Your task to perform on an android device: Go to network settings Image 0: 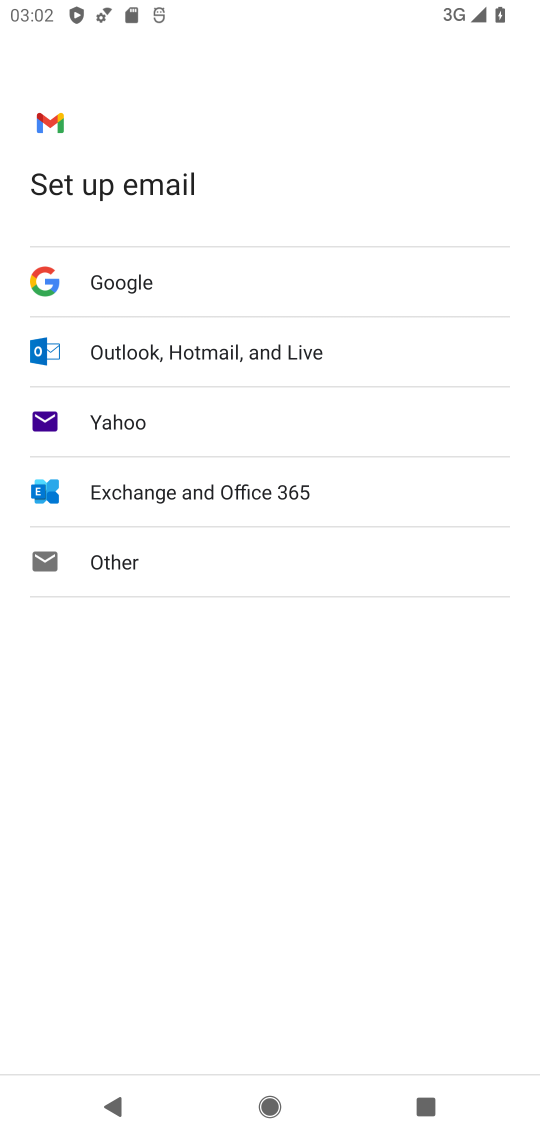
Step 0: press home button
Your task to perform on an android device: Go to network settings Image 1: 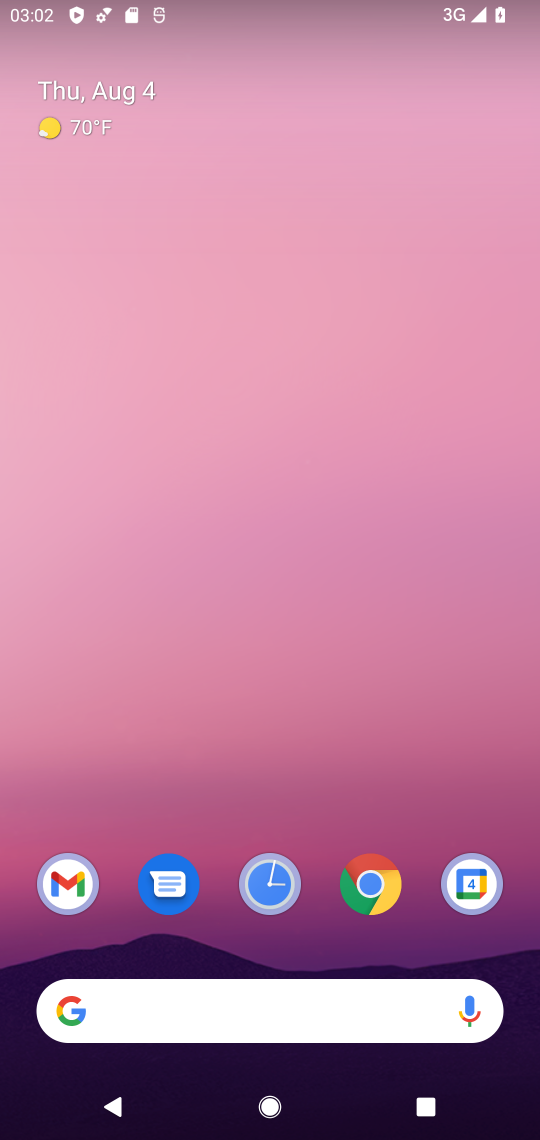
Step 1: drag from (327, 832) to (368, 197)
Your task to perform on an android device: Go to network settings Image 2: 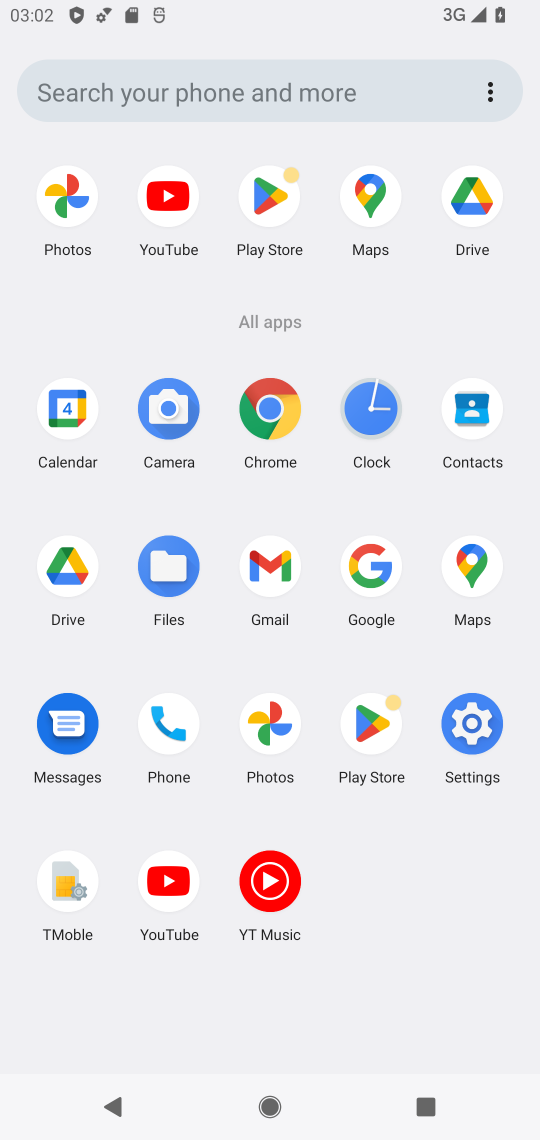
Step 2: click (479, 731)
Your task to perform on an android device: Go to network settings Image 3: 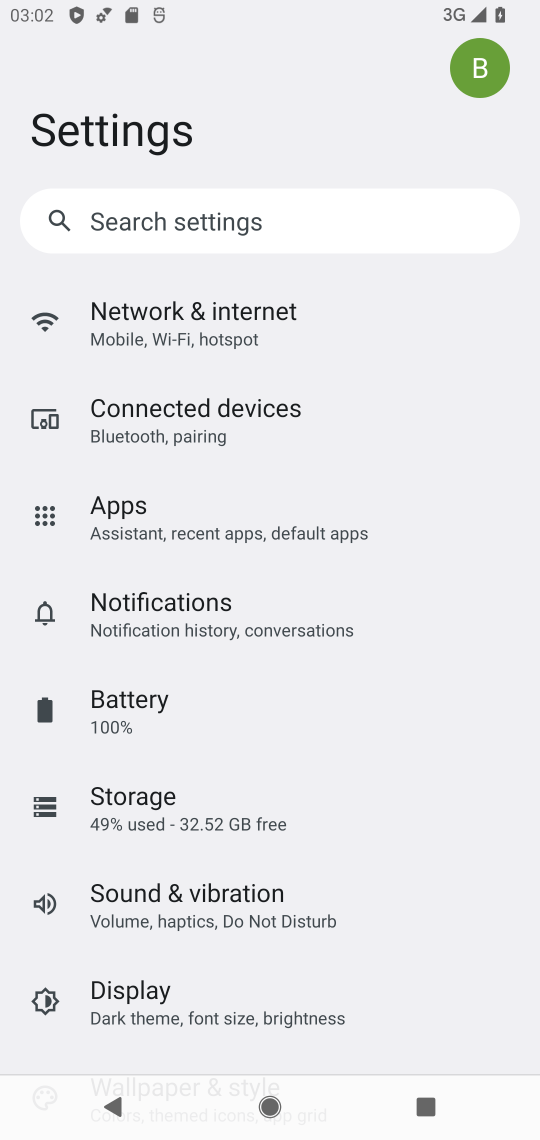
Step 3: drag from (463, 918) to (438, 675)
Your task to perform on an android device: Go to network settings Image 4: 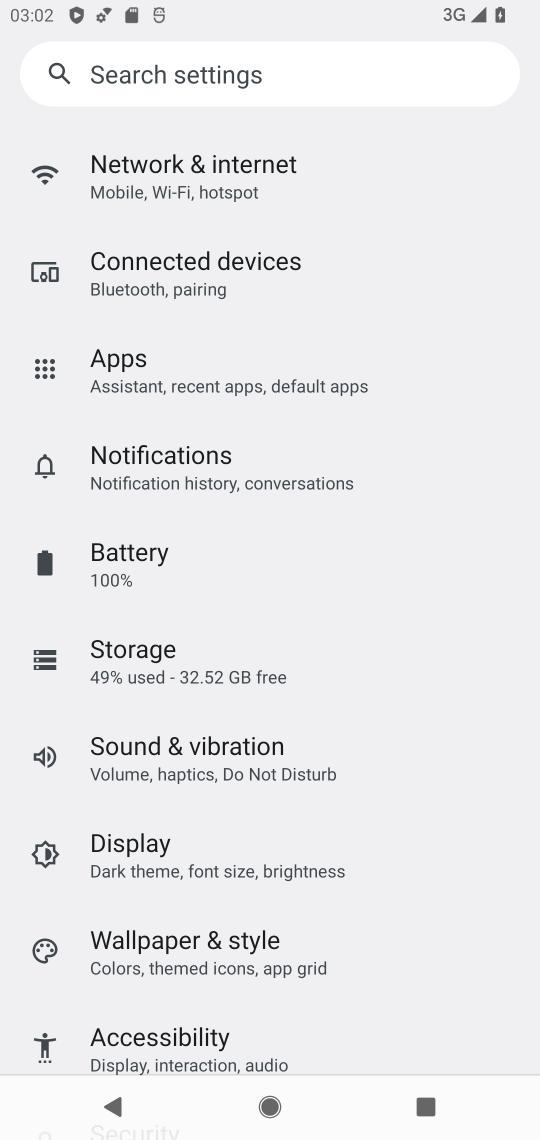
Step 4: drag from (458, 974) to (465, 750)
Your task to perform on an android device: Go to network settings Image 5: 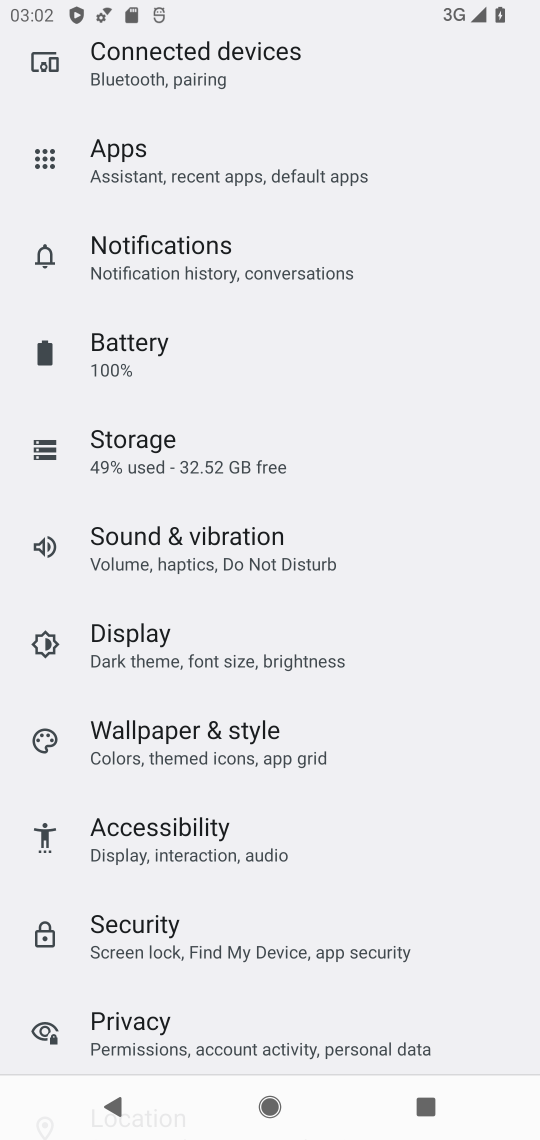
Step 5: drag from (461, 999) to (483, 742)
Your task to perform on an android device: Go to network settings Image 6: 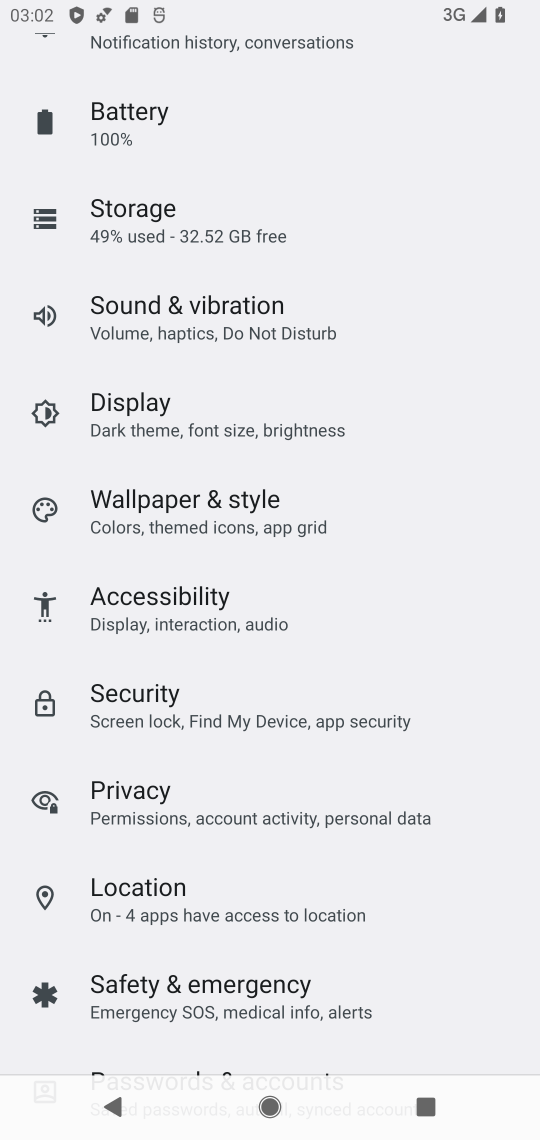
Step 6: drag from (458, 994) to (482, 693)
Your task to perform on an android device: Go to network settings Image 7: 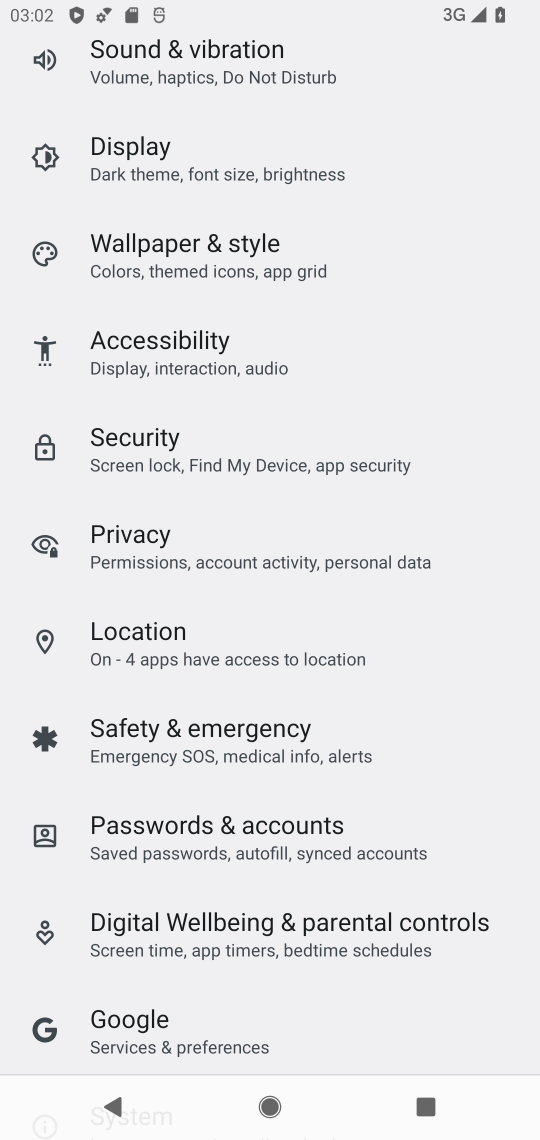
Step 7: drag from (460, 999) to (486, 706)
Your task to perform on an android device: Go to network settings Image 8: 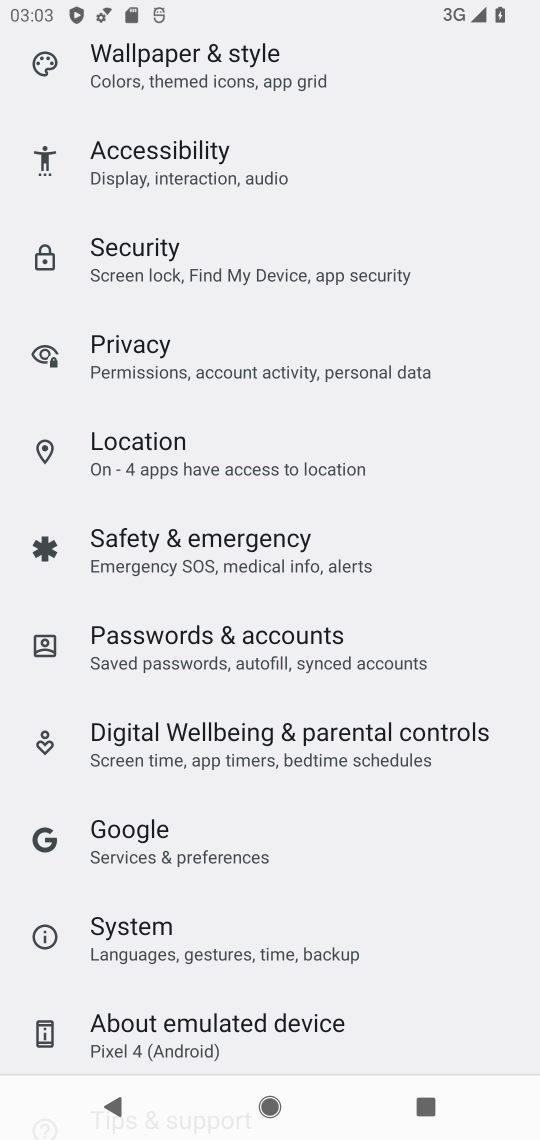
Step 8: drag from (440, 935) to (438, 612)
Your task to perform on an android device: Go to network settings Image 9: 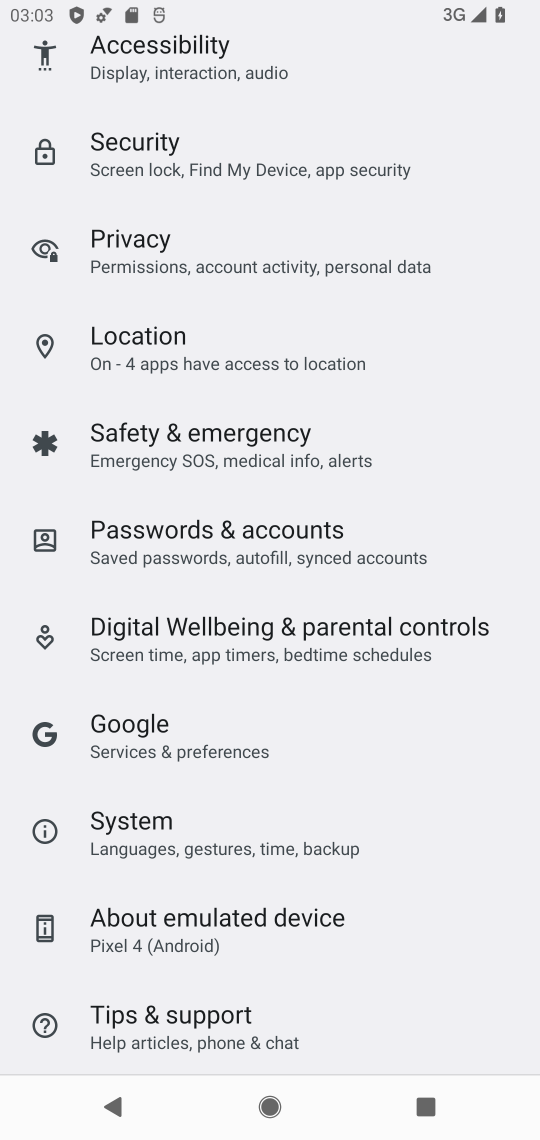
Step 9: drag from (474, 446) to (475, 647)
Your task to perform on an android device: Go to network settings Image 10: 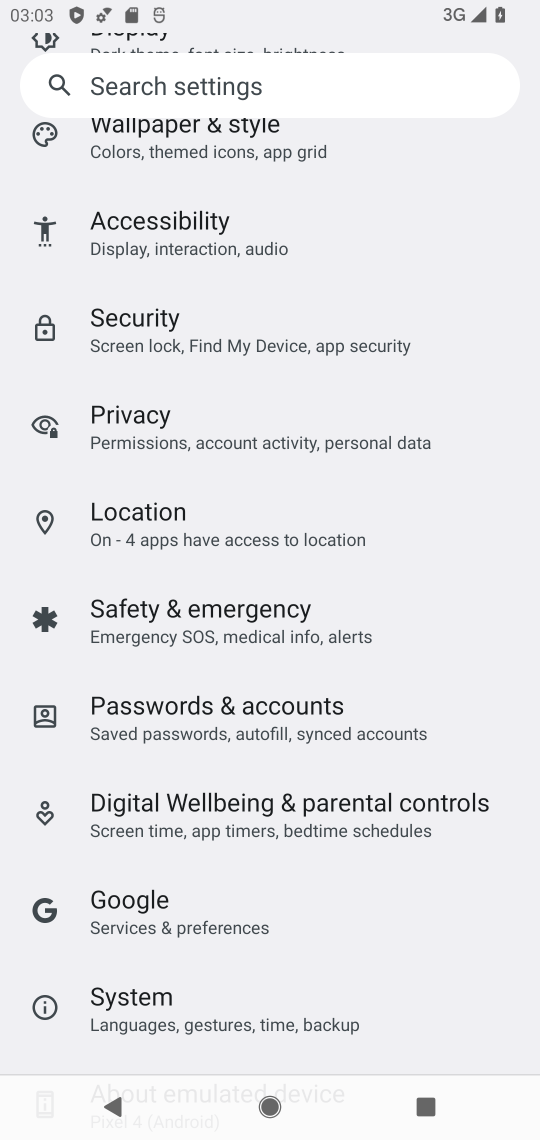
Step 10: drag from (471, 402) to (470, 644)
Your task to perform on an android device: Go to network settings Image 11: 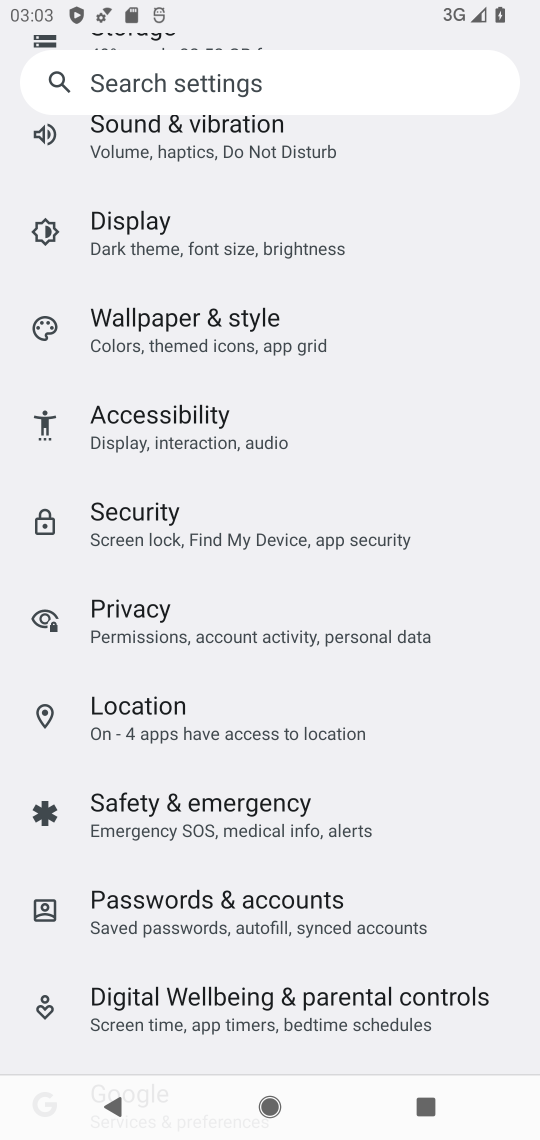
Step 11: drag from (459, 398) to (472, 651)
Your task to perform on an android device: Go to network settings Image 12: 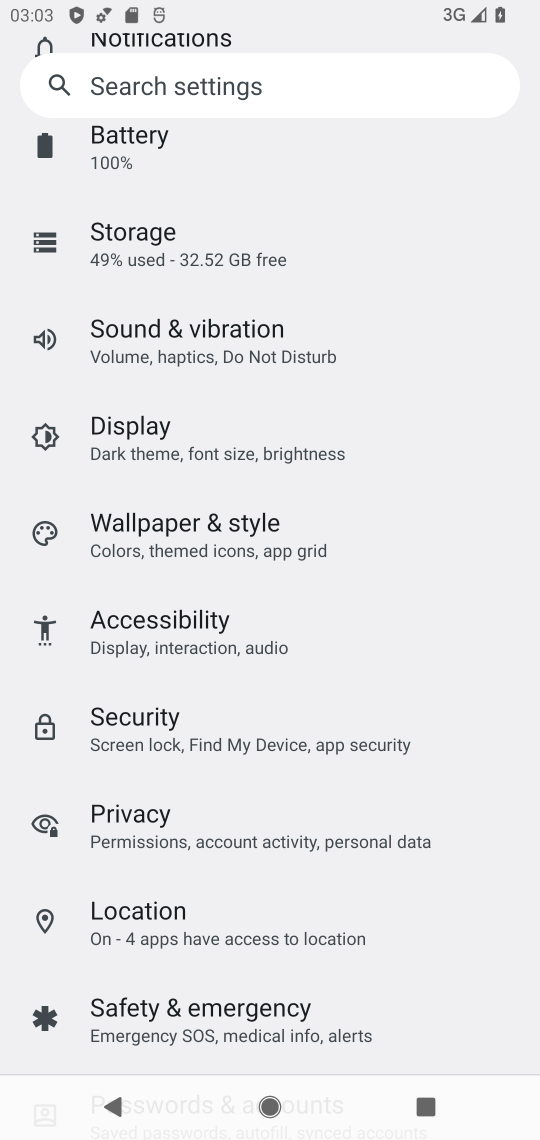
Step 12: drag from (453, 324) to (459, 560)
Your task to perform on an android device: Go to network settings Image 13: 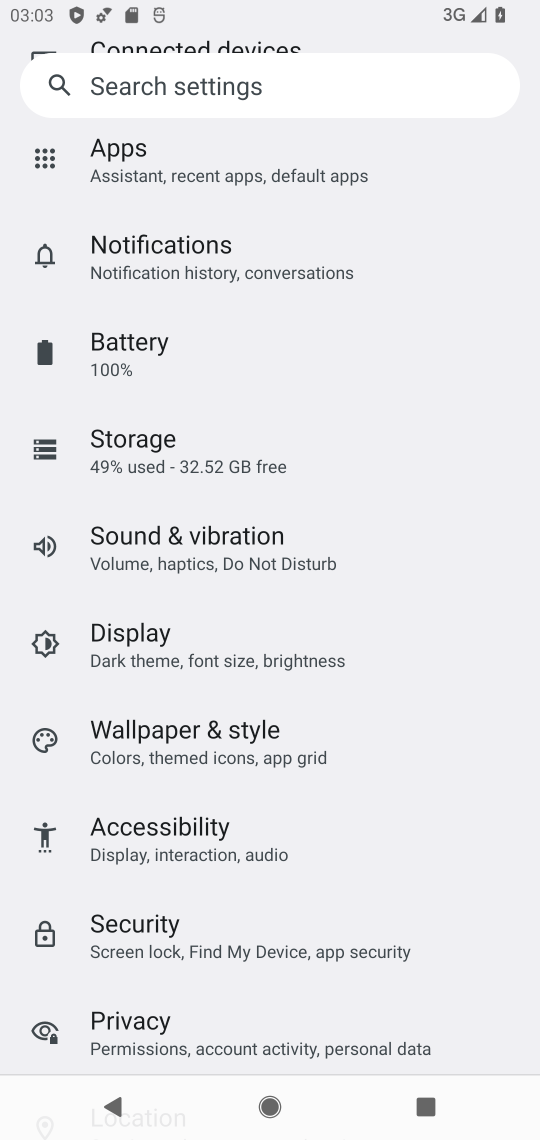
Step 13: drag from (445, 229) to (458, 529)
Your task to perform on an android device: Go to network settings Image 14: 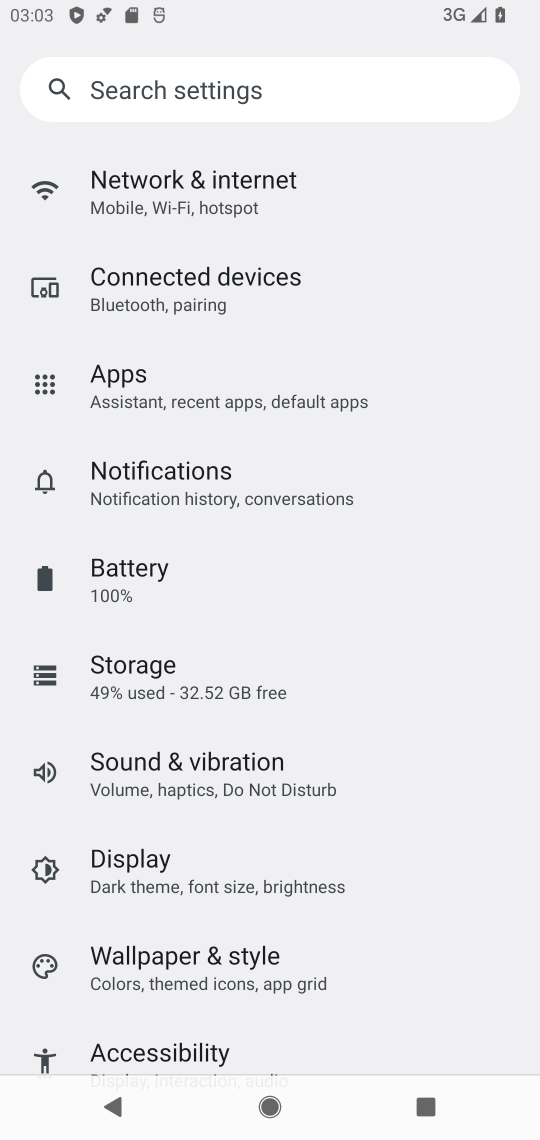
Step 14: drag from (435, 227) to (457, 513)
Your task to perform on an android device: Go to network settings Image 15: 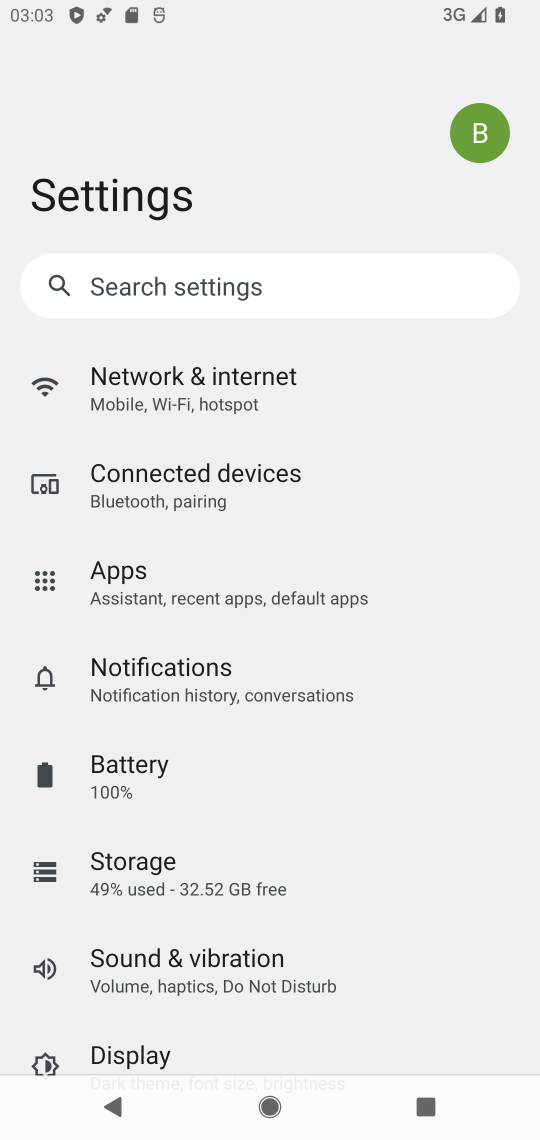
Step 15: click (235, 377)
Your task to perform on an android device: Go to network settings Image 16: 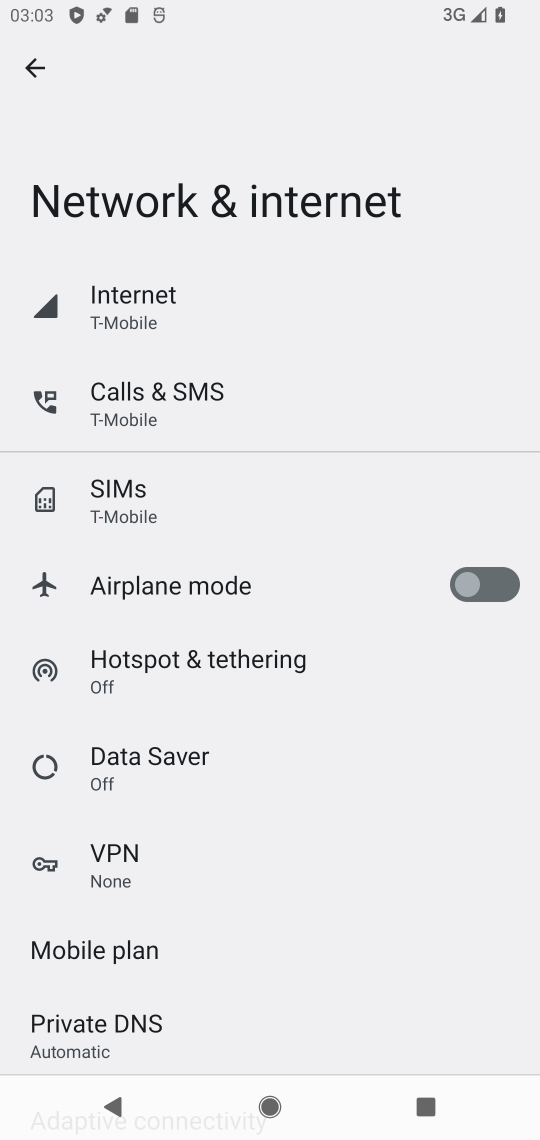
Step 16: task complete